Your task to perform on an android device: create a new album in the google photos Image 0: 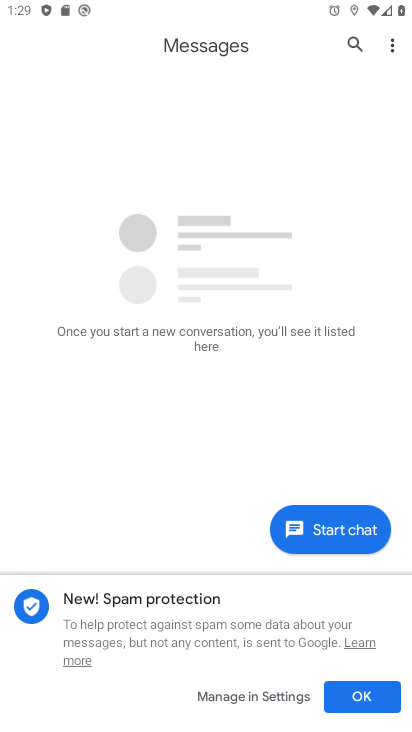
Step 0: press home button
Your task to perform on an android device: create a new album in the google photos Image 1: 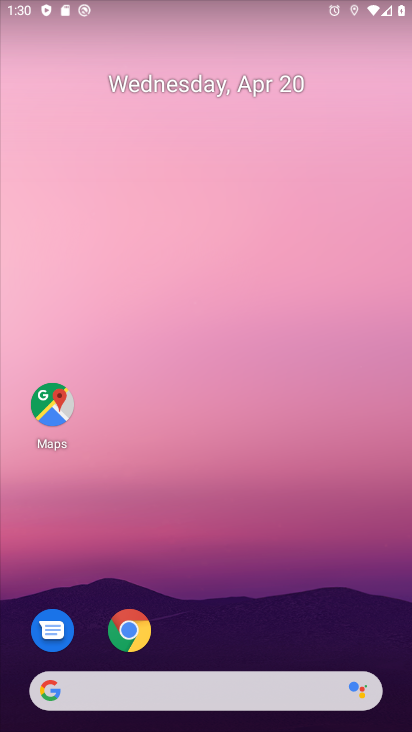
Step 1: drag from (194, 622) to (127, 88)
Your task to perform on an android device: create a new album in the google photos Image 2: 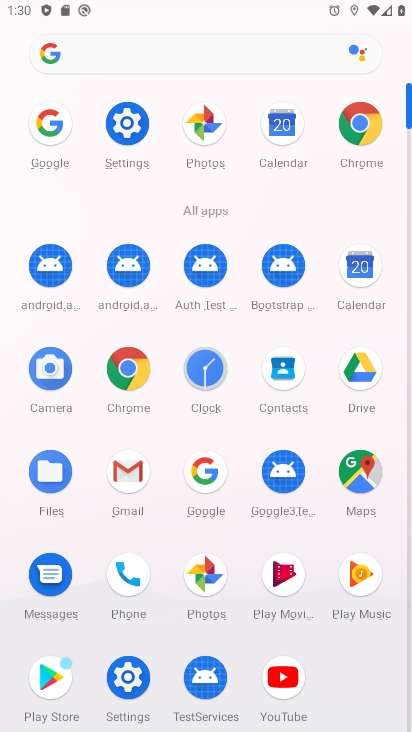
Step 2: click (216, 125)
Your task to perform on an android device: create a new album in the google photos Image 3: 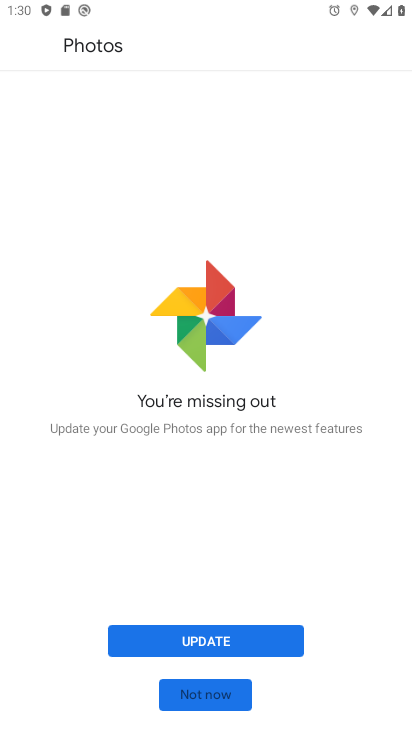
Step 3: click (205, 697)
Your task to perform on an android device: create a new album in the google photos Image 4: 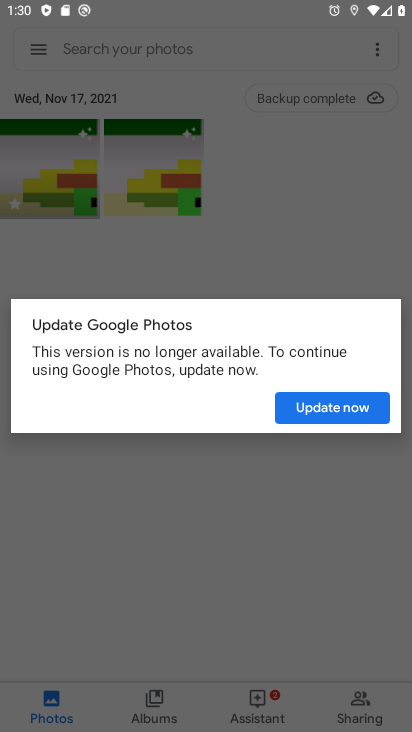
Step 4: click (314, 422)
Your task to perform on an android device: create a new album in the google photos Image 5: 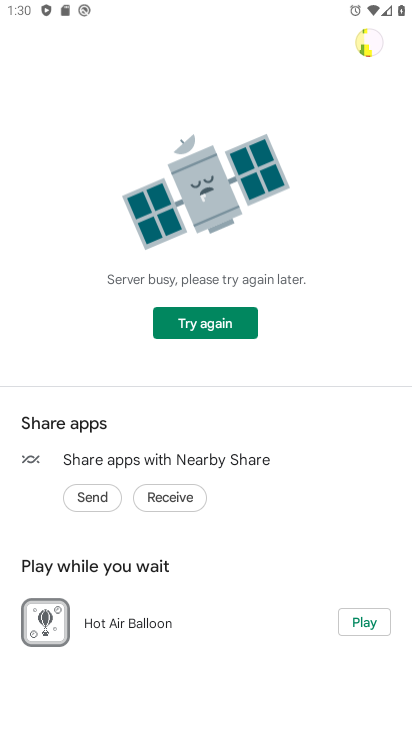
Step 5: click (209, 327)
Your task to perform on an android device: create a new album in the google photos Image 6: 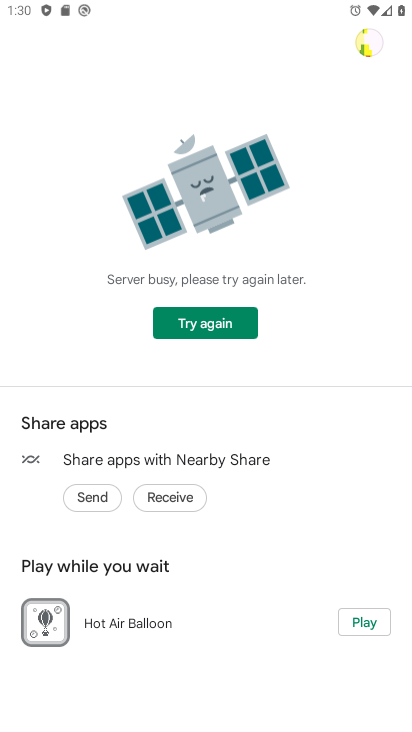
Step 6: click (209, 327)
Your task to perform on an android device: create a new album in the google photos Image 7: 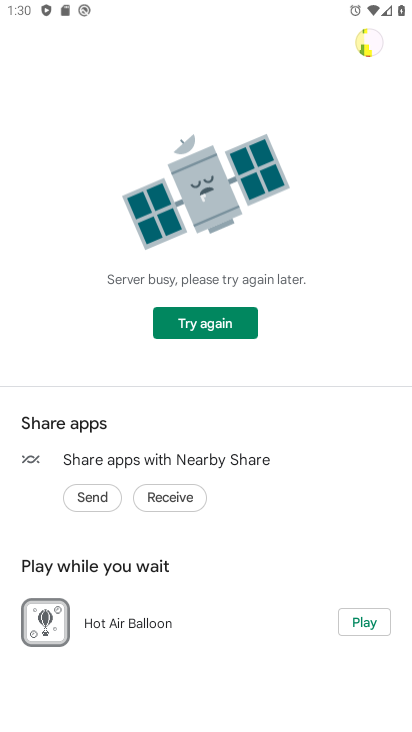
Step 7: click (371, 48)
Your task to perform on an android device: create a new album in the google photos Image 8: 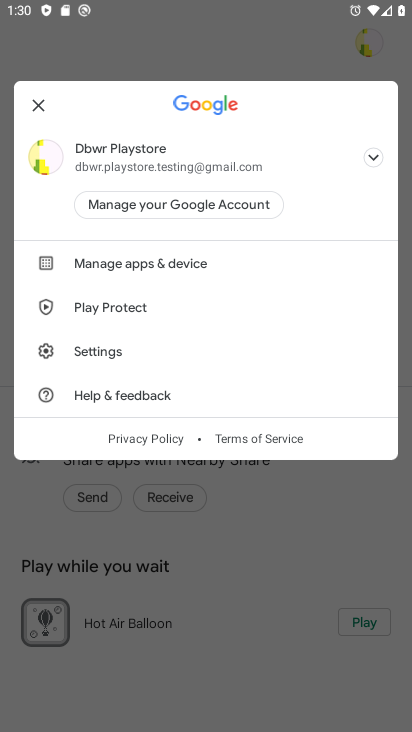
Step 8: click (263, 46)
Your task to perform on an android device: create a new album in the google photos Image 9: 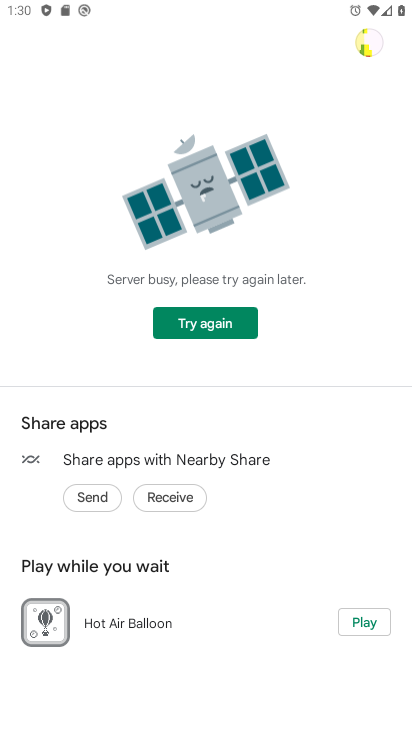
Step 9: task complete